Your task to perform on an android device: turn off javascript in the chrome app Image 0: 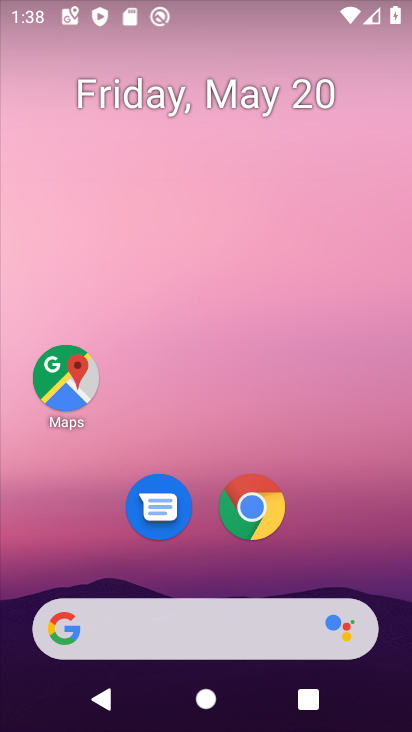
Step 0: click (248, 501)
Your task to perform on an android device: turn off javascript in the chrome app Image 1: 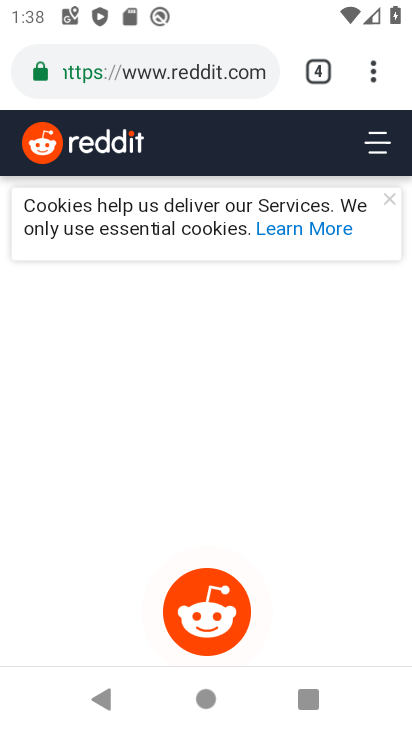
Step 1: click (377, 80)
Your task to perform on an android device: turn off javascript in the chrome app Image 2: 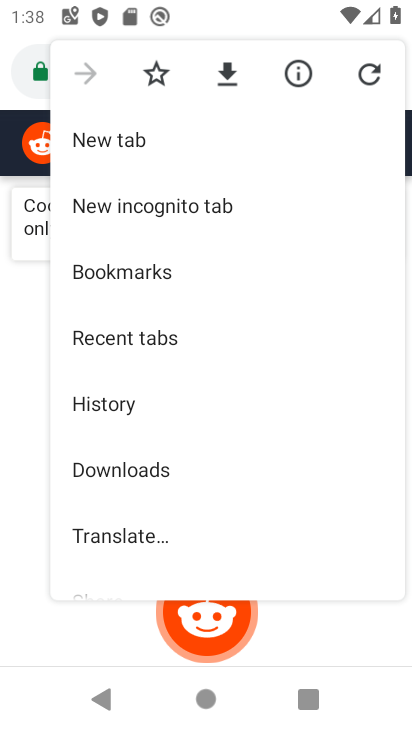
Step 2: drag from (116, 540) to (121, 182)
Your task to perform on an android device: turn off javascript in the chrome app Image 3: 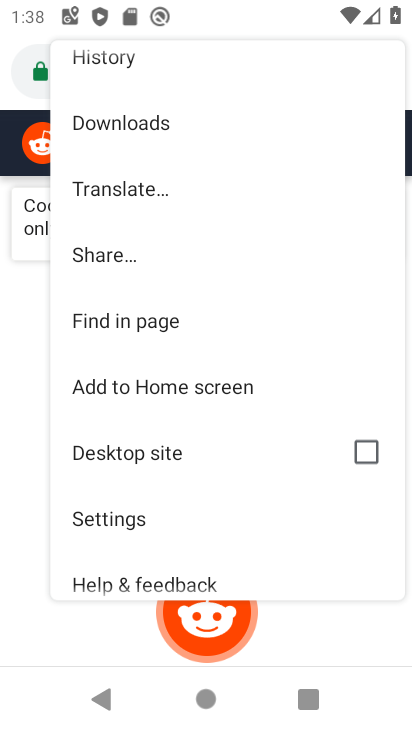
Step 3: click (113, 521)
Your task to perform on an android device: turn off javascript in the chrome app Image 4: 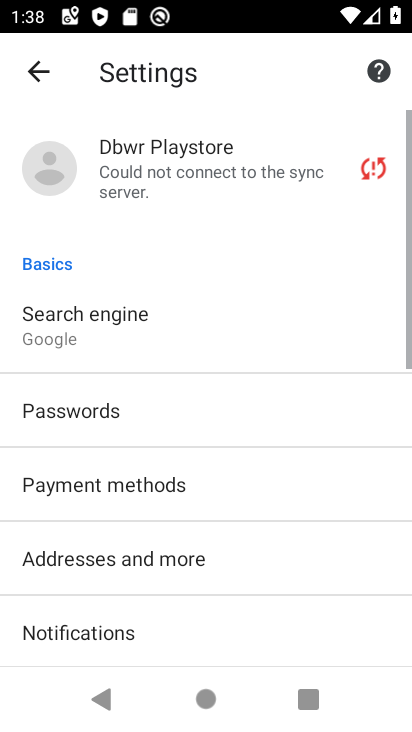
Step 4: drag from (137, 509) to (142, 223)
Your task to perform on an android device: turn off javascript in the chrome app Image 5: 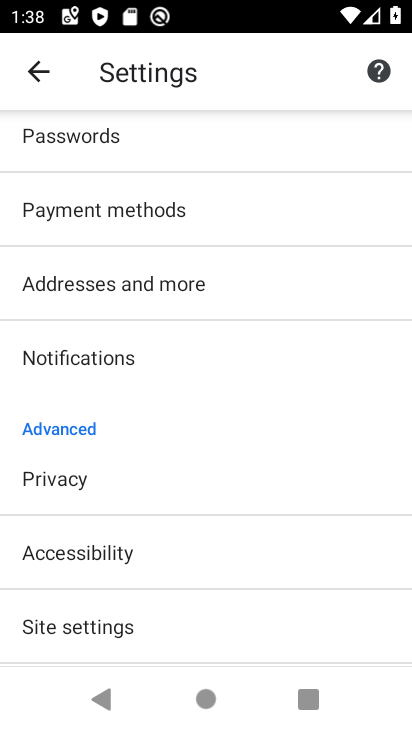
Step 5: drag from (97, 605) to (130, 254)
Your task to perform on an android device: turn off javascript in the chrome app Image 6: 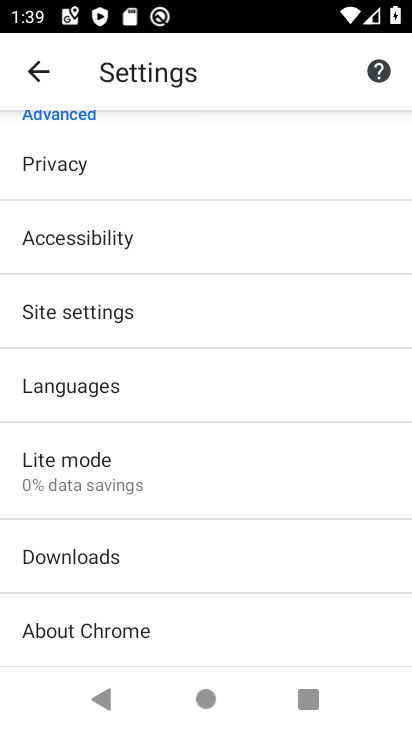
Step 6: click (88, 315)
Your task to perform on an android device: turn off javascript in the chrome app Image 7: 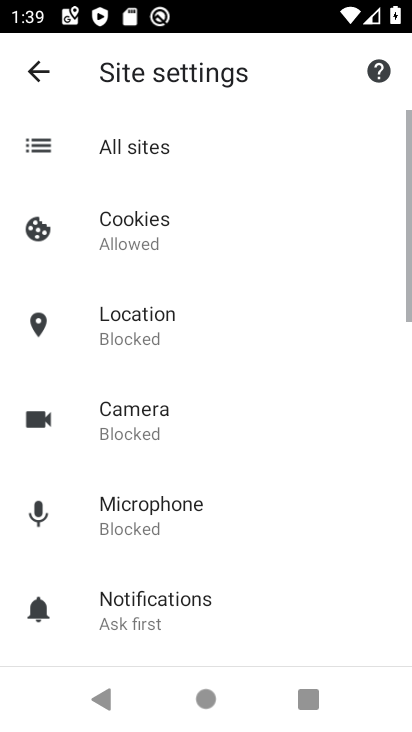
Step 7: drag from (127, 595) to (147, 265)
Your task to perform on an android device: turn off javascript in the chrome app Image 8: 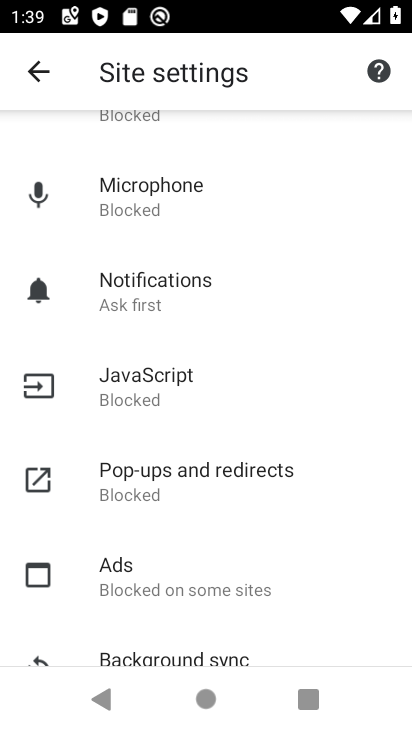
Step 8: click (156, 384)
Your task to perform on an android device: turn off javascript in the chrome app Image 9: 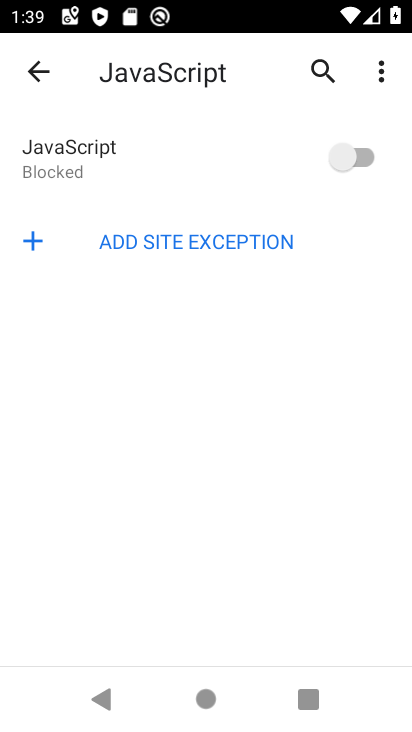
Step 9: task complete